Your task to perform on an android device: turn notification dots on Image 0: 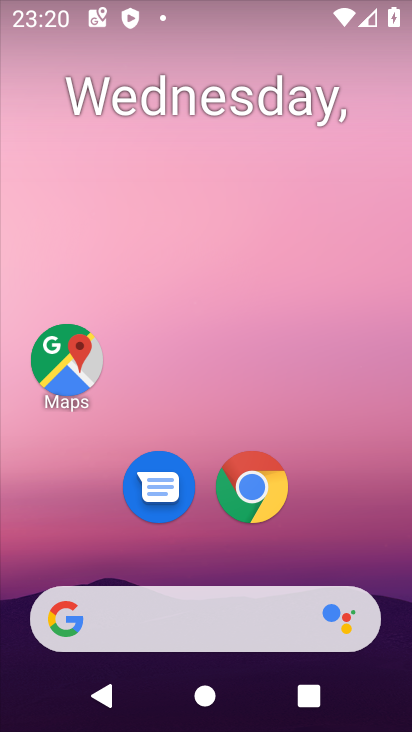
Step 0: drag from (379, 570) to (410, 488)
Your task to perform on an android device: turn notification dots on Image 1: 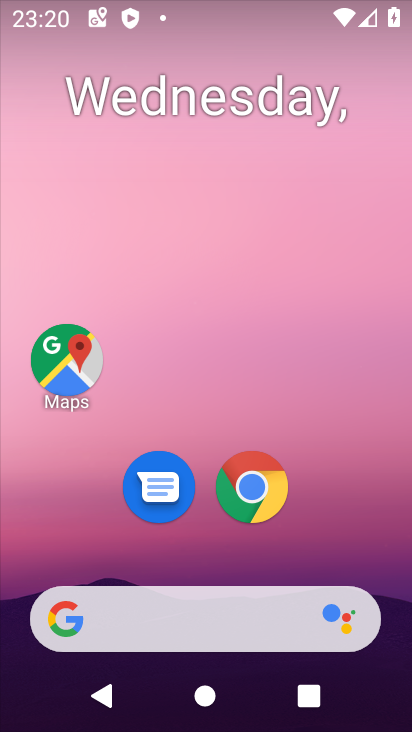
Step 1: drag from (353, 566) to (338, 9)
Your task to perform on an android device: turn notification dots on Image 2: 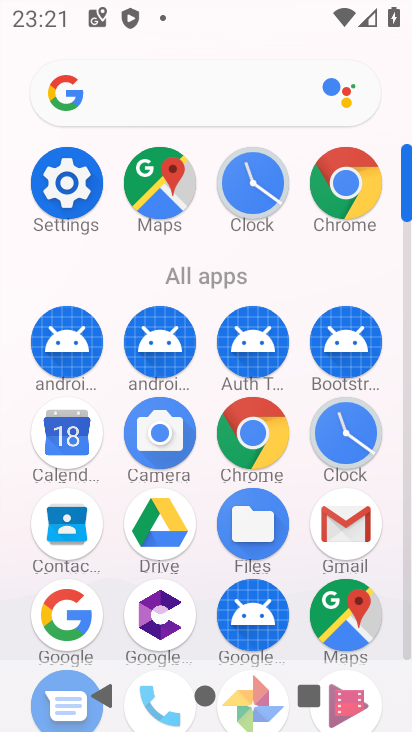
Step 2: click (67, 186)
Your task to perform on an android device: turn notification dots on Image 3: 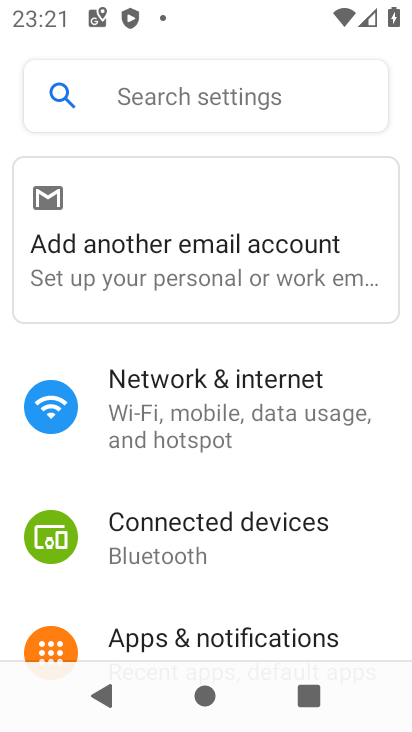
Step 3: drag from (365, 542) to (362, 357)
Your task to perform on an android device: turn notification dots on Image 4: 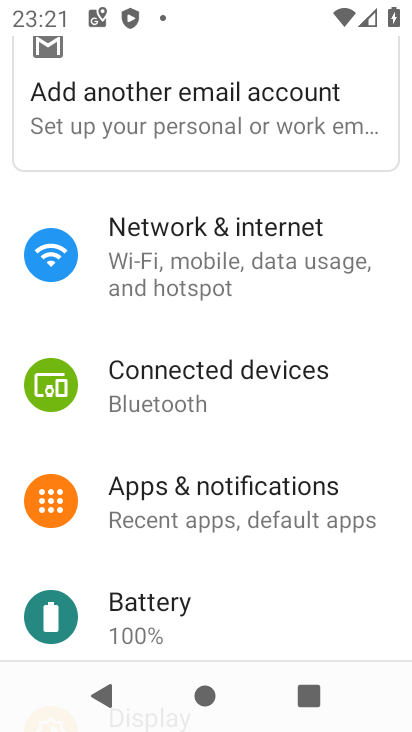
Step 4: click (237, 489)
Your task to perform on an android device: turn notification dots on Image 5: 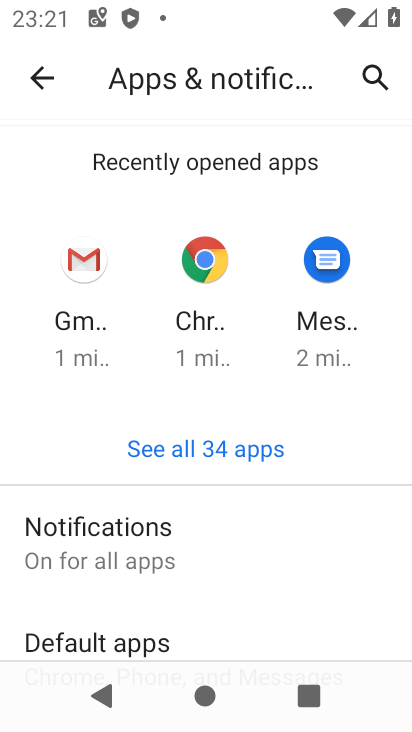
Step 5: click (121, 544)
Your task to perform on an android device: turn notification dots on Image 6: 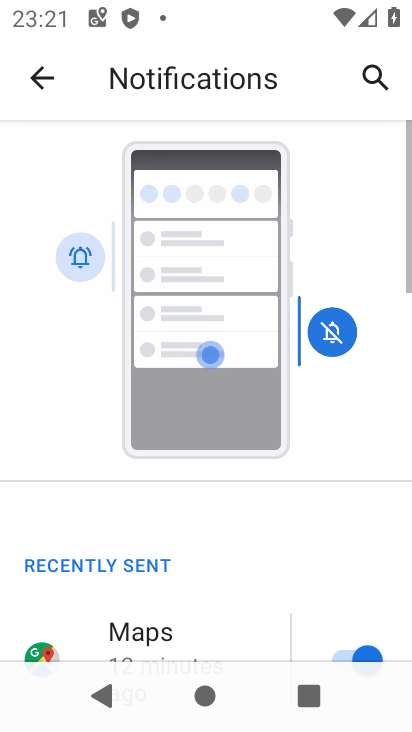
Step 6: drag from (199, 592) to (213, 33)
Your task to perform on an android device: turn notification dots on Image 7: 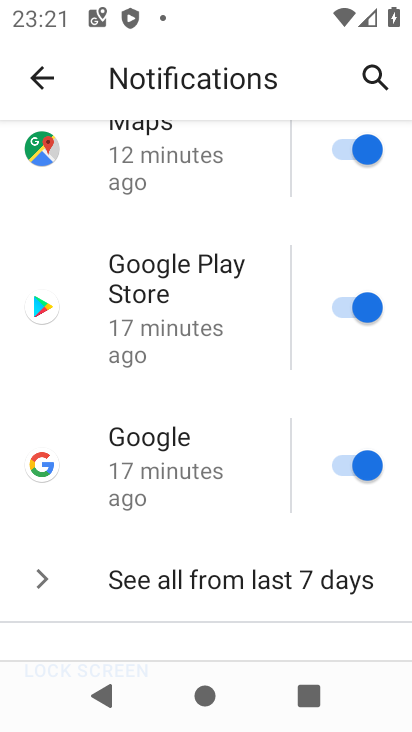
Step 7: drag from (177, 467) to (173, 60)
Your task to perform on an android device: turn notification dots on Image 8: 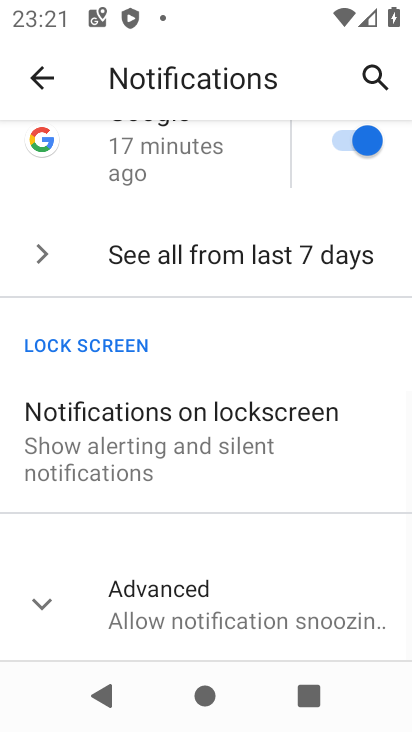
Step 8: drag from (156, 482) to (141, 166)
Your task to perform on an android device: turn notification dots on Image 9: 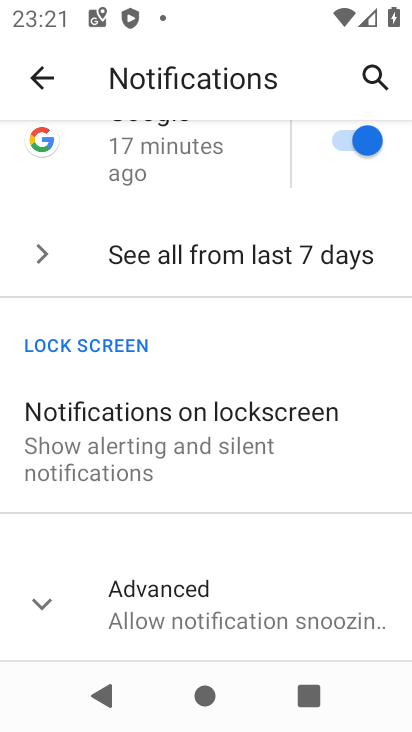
Step 9: click (44, 610)
Your task to perform on an android device: turn notification dots on Image 10: 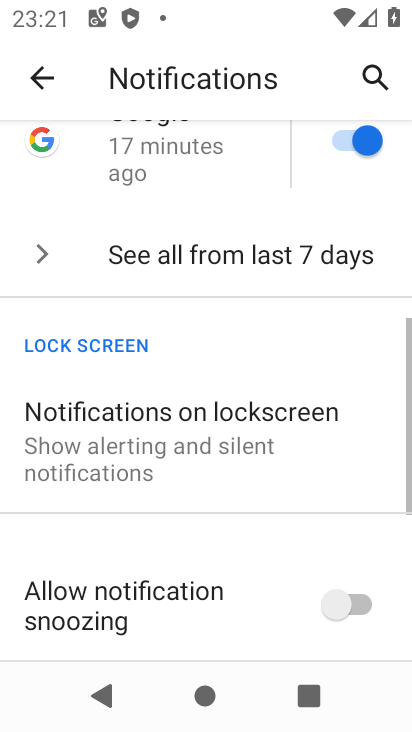
Step 10: task complete